Your task to perform on an android device: change text size in settings app Image 0: 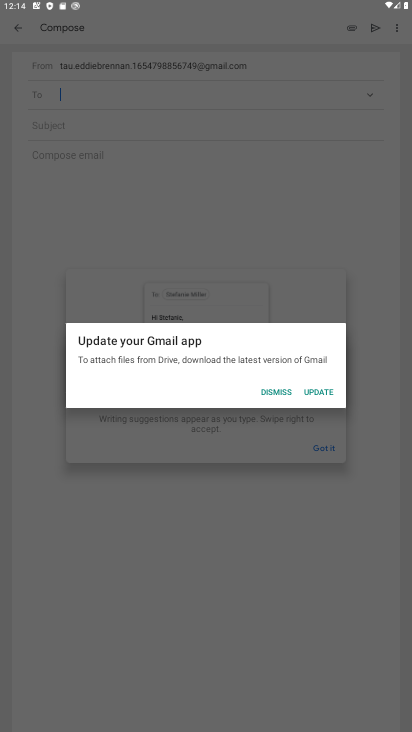
Step 0: press home button
Your task to perform on an android device: change text size in settings app Image 1: 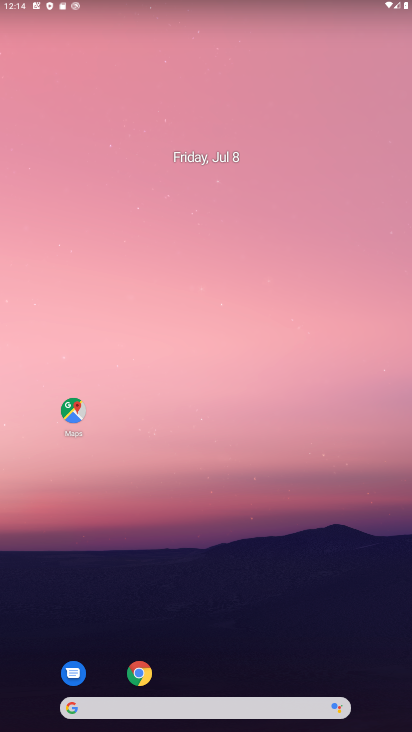
Step 1: drag from (244, 649) to (272, 194)
Your task to perform on an android device: change text size in settings app Image 2: 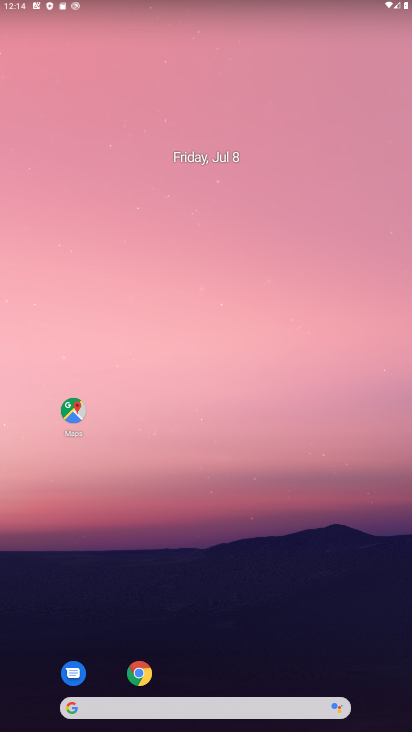
Step 2: drag from (215, 696) to (267, 39)
Your task to perform on an android device: change text size in settings app Image 3: 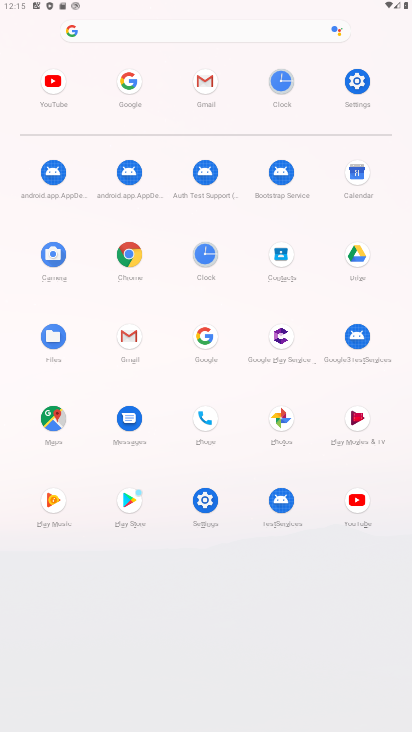
Step 3: click (359, 80)
Your task to perform on an android device: change text size in settings app Image 4: 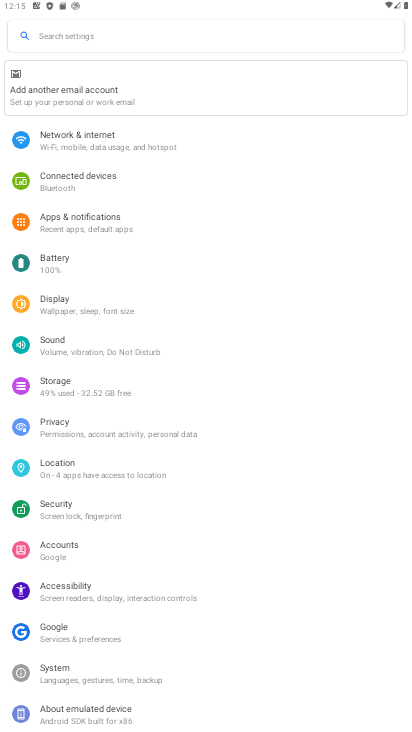
Step 4: click (68, 585)
Your task to perform on an android device: change text size in settings app Image 5: 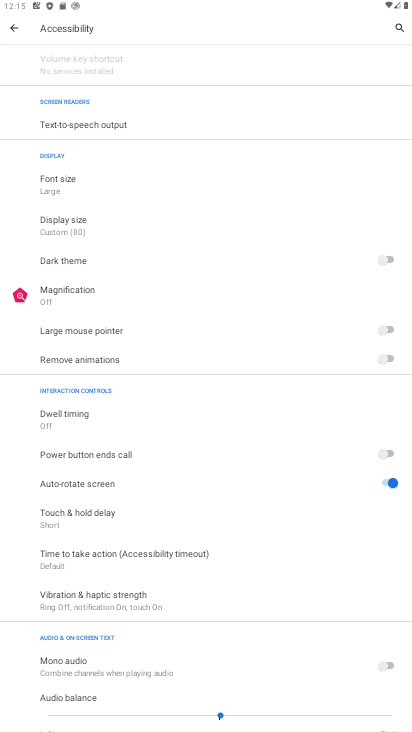
Step 5: click (53, 187)
Your task to perform on an android device: change text size in settings app Image 6: 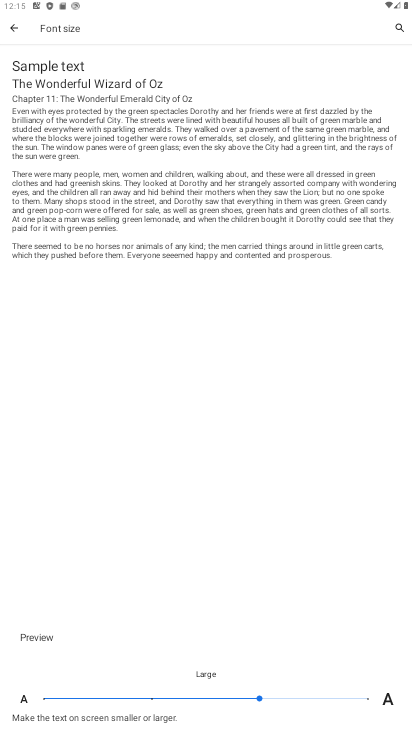
Step 6: click (154, 699)
Your task to perform on an android device: change text size in settings app Image 7: 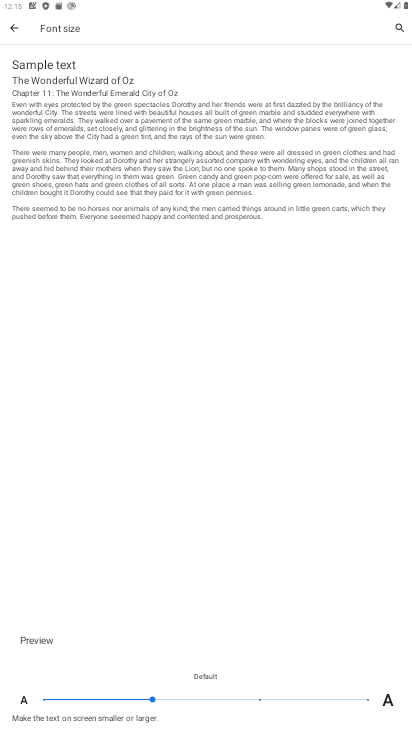
Step 7: task complete